Your task to perform on an android device: Open the map Image 0: 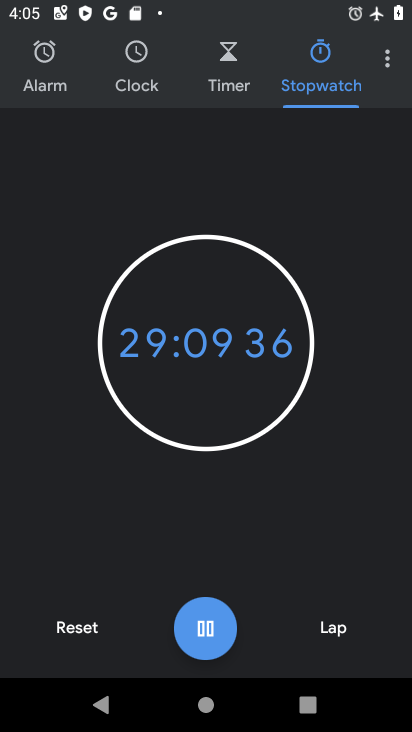
Step 0: press home button
Your task to perform on an android device: Open the map Image 1: 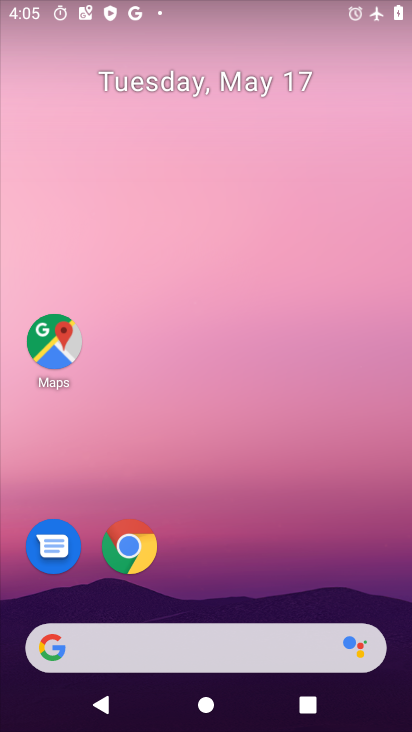
Step 1: click (71, 332)
Your task to perform on an android device: Open the map Image 2: 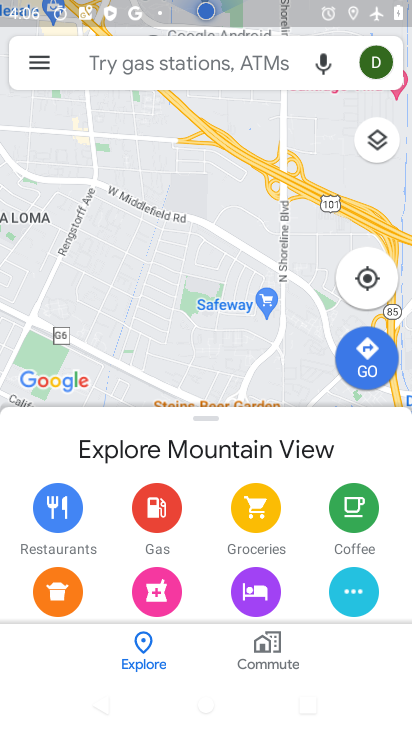
Step 2: task complete